Your task to perform on an android device: turn off notifications in google photos Image 0: 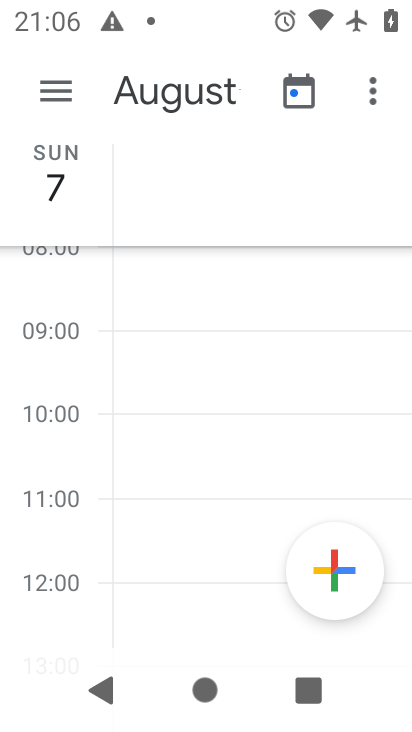
Step 0: press home button
Your task to perform on an android device: turn off notifications in google photos Image 1: 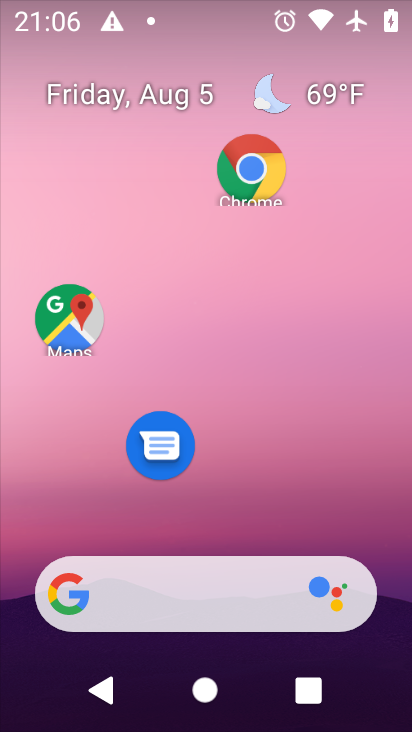
Step 1: drag from (211, 516) to (198, 104)
Your task to perform on an android device: turn off notifications in google photos Image 2: 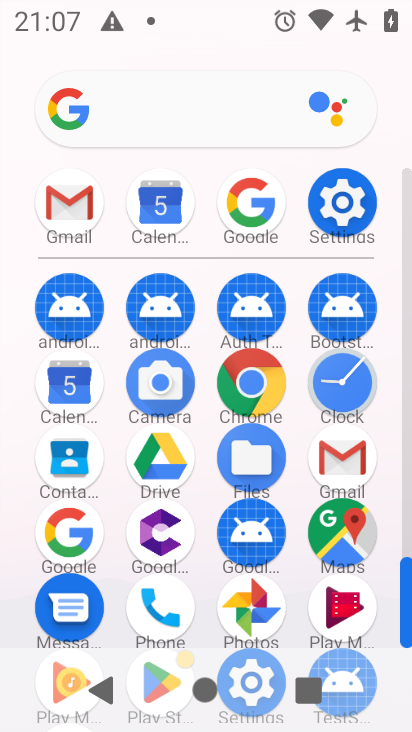
Step 2: click (259, 602)
Your task to perform on an android device: turn off notifications in google photos Image 3: 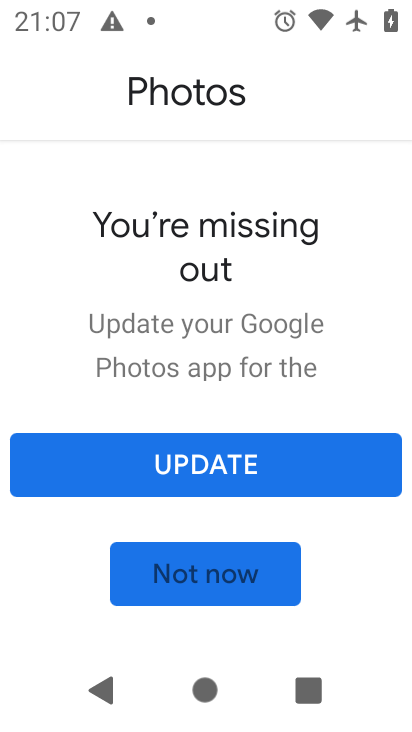
Step 3: click (241, 563)
Your task to perform on an android device: turn off notifications in google photos Image 4: 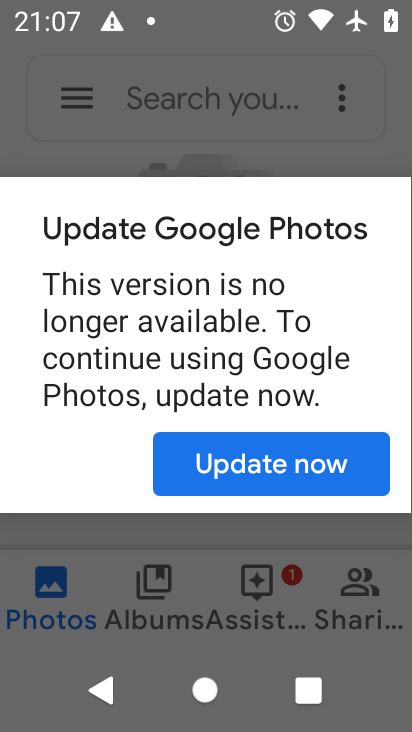
Step 4: click (253, 452)
Your task to perform on an android device: turn off notifications in google photos Image 5: 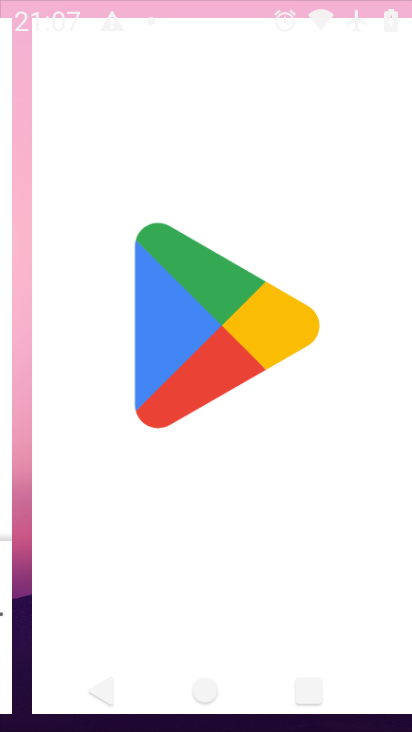
Step 5: click (69, 100)
Your task to perform on an android device: turn off notifications in google photos Image 6: 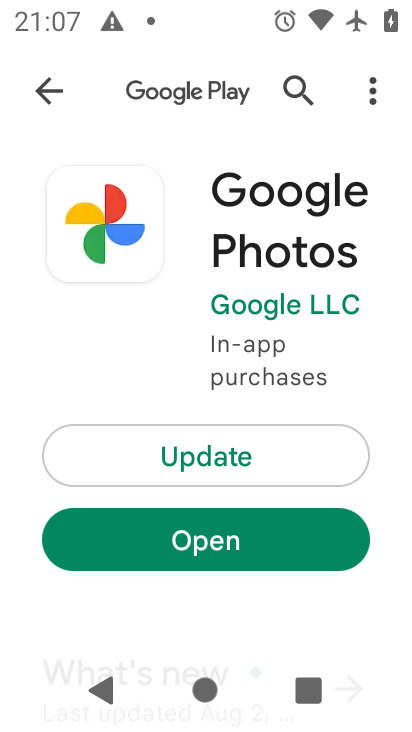
Step 6: click (273, 529)
Your task to perform on an android device: turn off notifications in google photos Image 7: 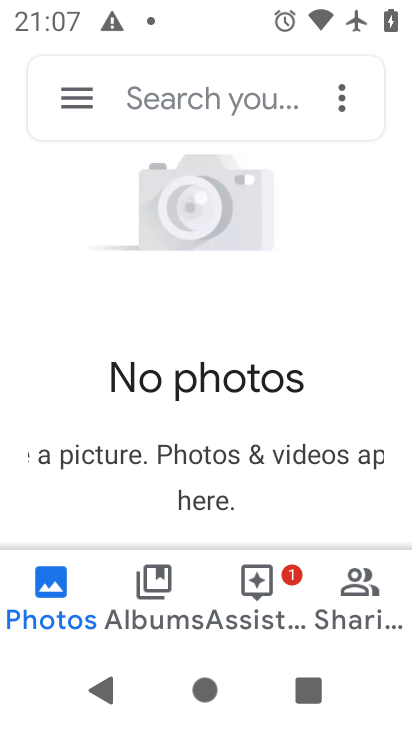
Step 7: click (91, 93)
Your task to perform on an android device: turn off notifications in google photos Image 8: 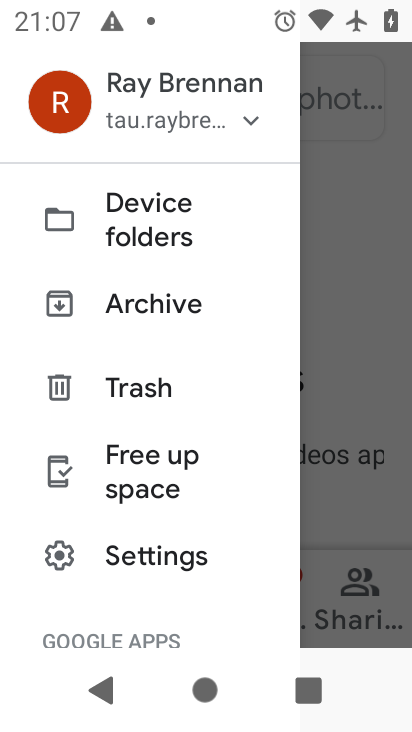
Step 8: click (141, 559)
Your task to perform on an android device: turn off notifications in google photos Image 9: 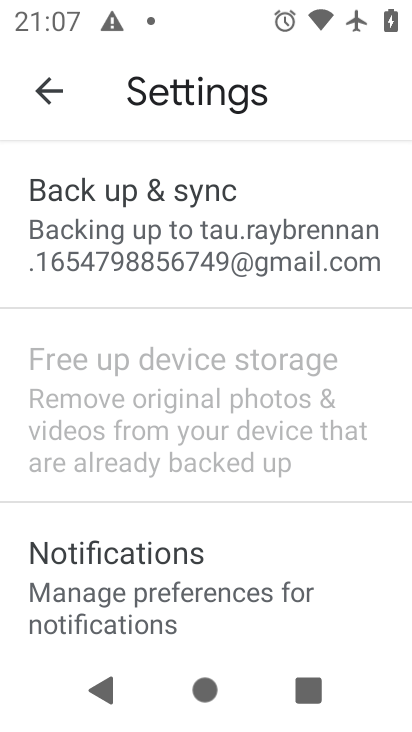
Step 9: click (174, 590)
Your task to perform on an android device: turn off notifications in google photos Image 10: 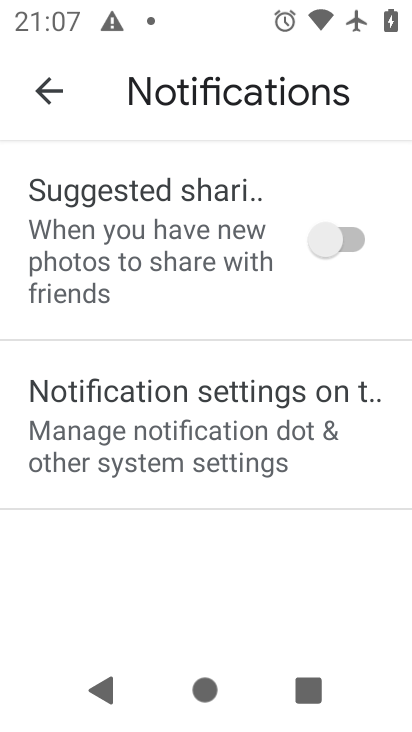
Step 10: click (152, 447)
Your task to perform on an android device: turn off notifications in google photos Image 11: 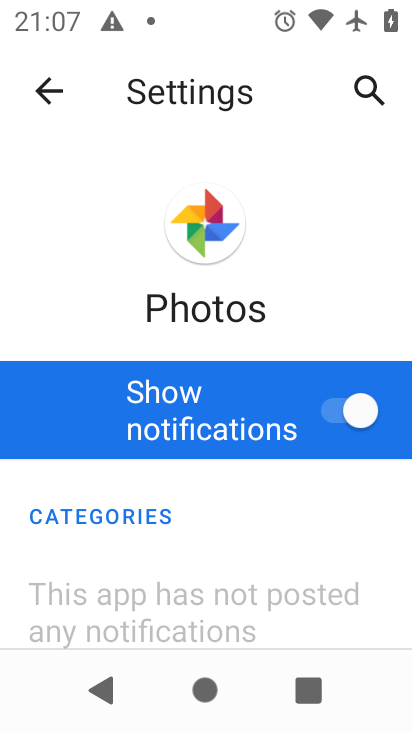
Step 11: click (339, 414)
Your task to perform on an android device: turn off notifications in google photos Image 12: 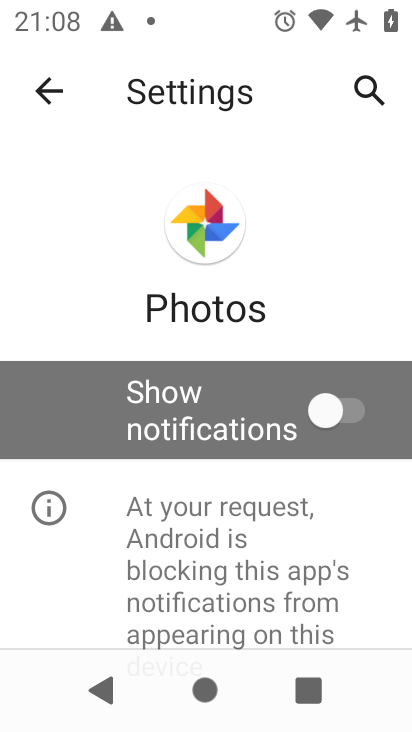
Step 12: task complete